Your task to perform on an android device: remove spam from my inbox in the gmail app Image 0: 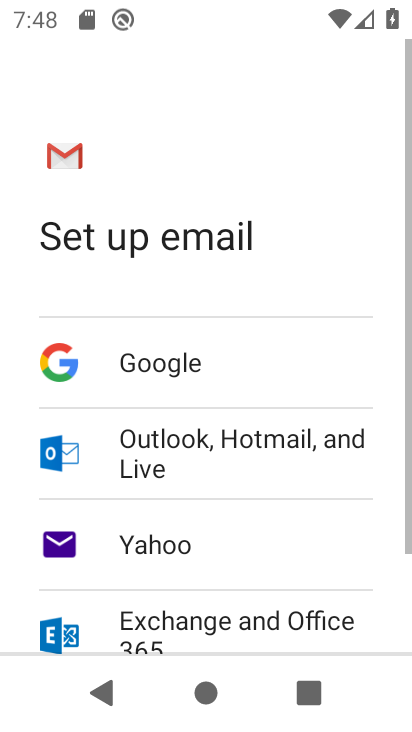
Step 0: press home button
Your task to perform on an android device: remove spam from my inbox in the gmail app Image 1: 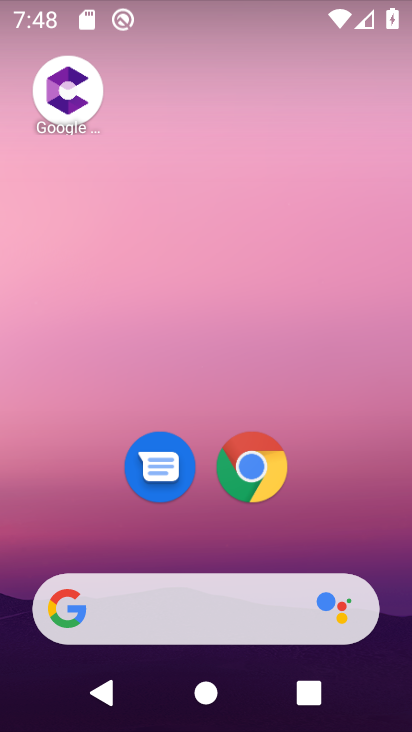
Step 1: drag from (198, 547) to (190, 31)
Your task to perform on an android device: remove spam from my inbox in the gmail app Image 2: 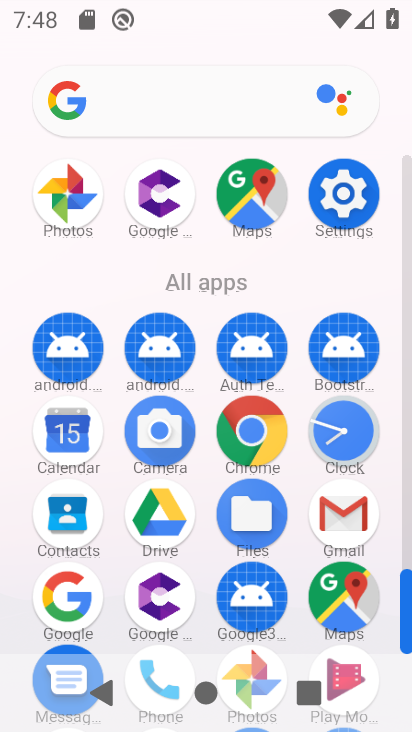
Step 2: click (346, 499)
Your task to perform on an android device: remove spam from my inbox in the gmail app Image 3: 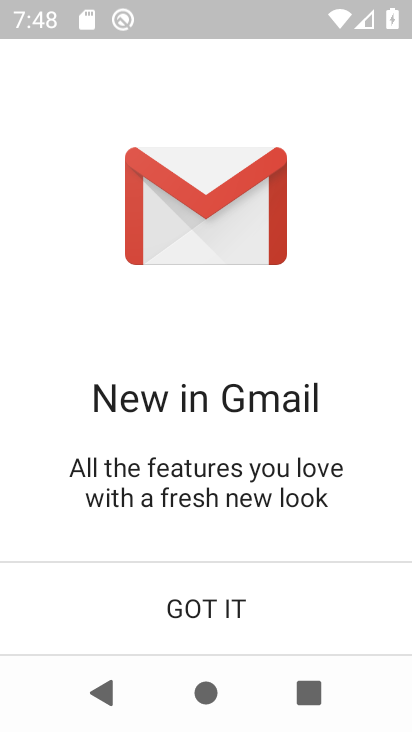
Step 3: click (147, 628)
Your task to perform on an android device: remove spam from my inbox in the gmail app Image 4: 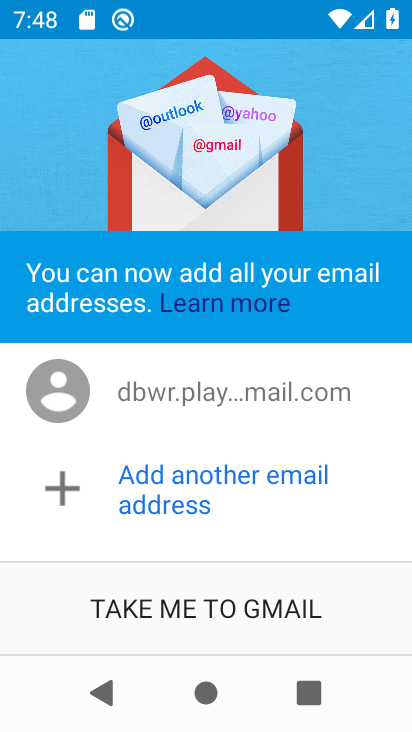
Step 4: click (164, 616)
Your task to perform on an android device: remove spam from my inbox in the gmail app Image 5: 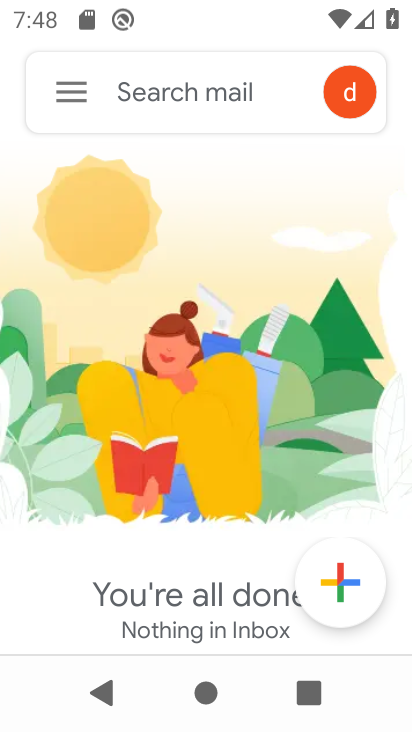
Step 5: click (73, 102)
Your task to perform on an android device: remove spam from my inbox in the gmail app Image 6: 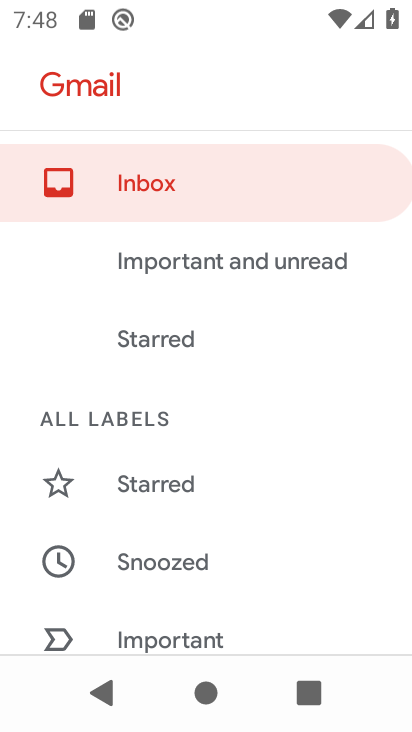
Step 6: drag from (181, 540) to (171, 138)
Your task to perform on an android device: remove spam from my inbox in the gmail app Image 7: 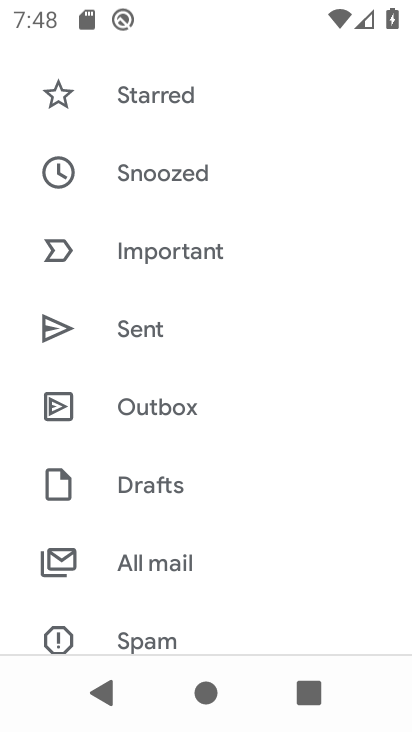
Step 7: drag from (222, 553) to (198, 292)
Your task to perform on an android device: remove spam from my inbox in the gmail app Image 8: 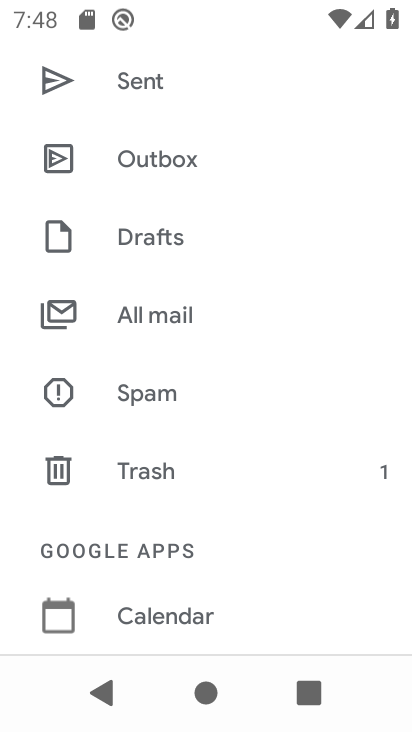
Step 8: click (148, 394)
Your task to perform on an android device: remove spam from my inbox in the gmail app Image 9: 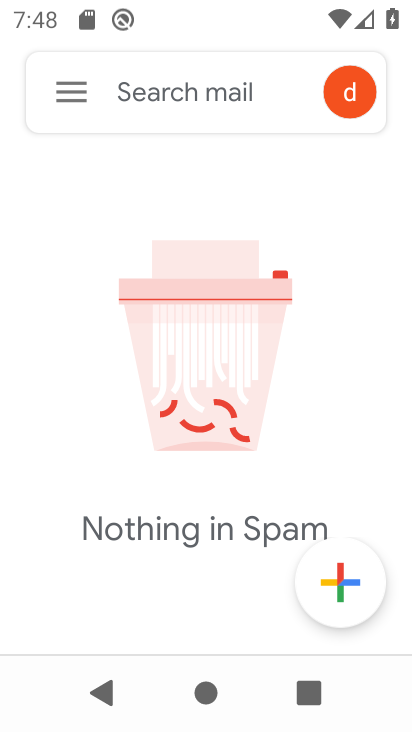
Step 9: task complete